Your task to perform on an android device: open wifi settings Image 0: 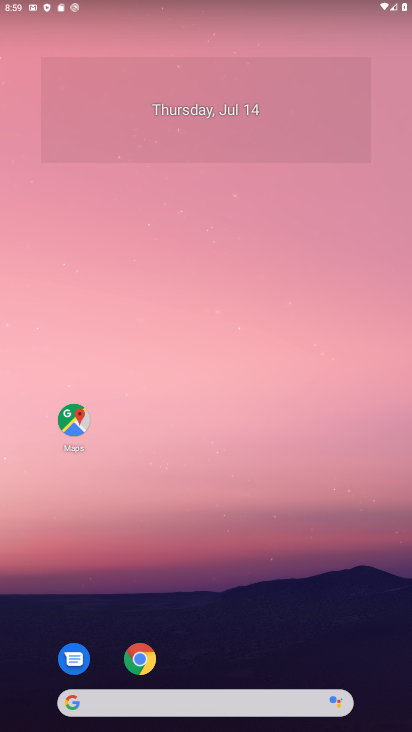
Step 0: press home button
Your task to perform on an android device: open wifi settings Image 1: 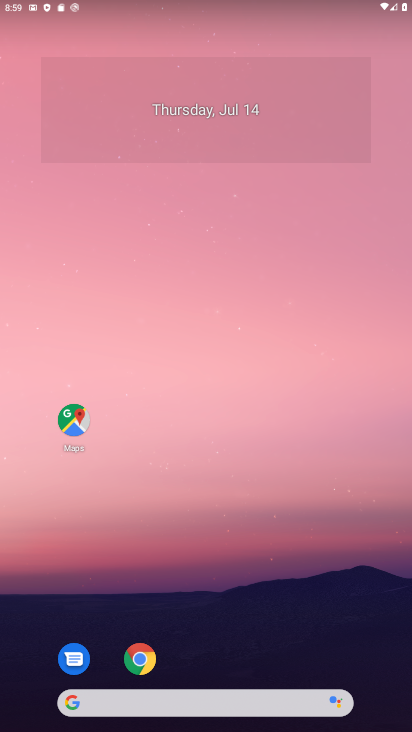
Step 1: drag from (254, 619) to (251, 63)
Your task to perform on an android device: open wifi settings Image 2: 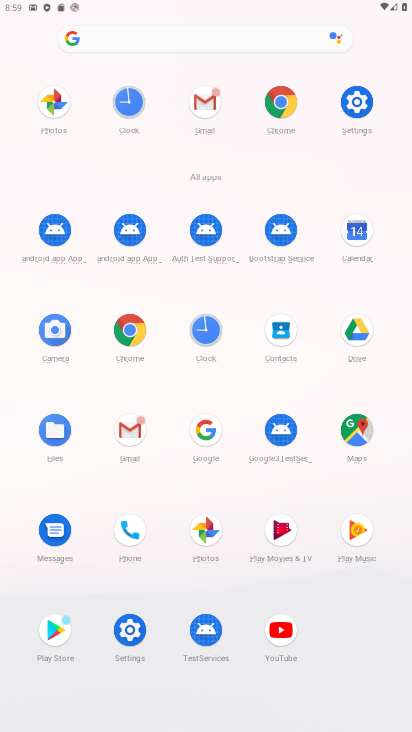
Step 2: click (348, 105)
Your task to perform on an android device: open wifi settings Image 3: 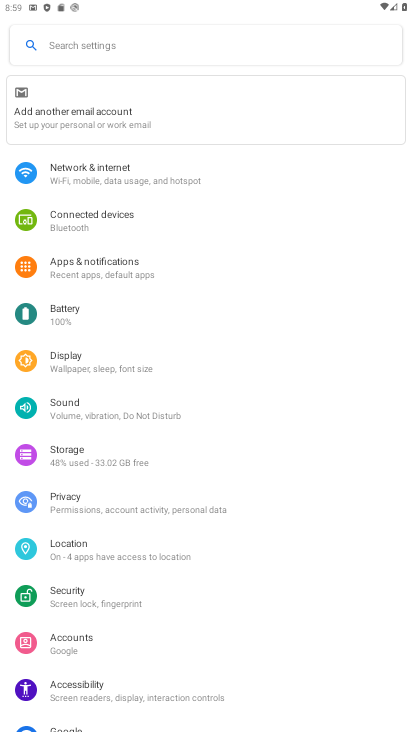
Step 3: click (114, 171)
Your task to perform on an android device: open wifi settings Image 4: 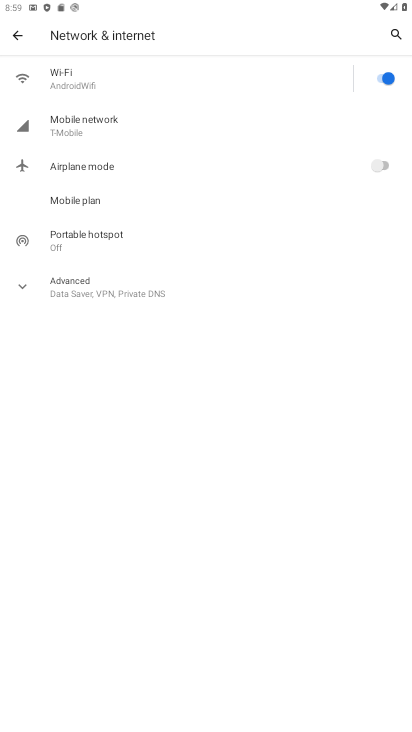
Step 4: click (119, 77)
Your task to perform on an android device: open wifi settings Image 5: 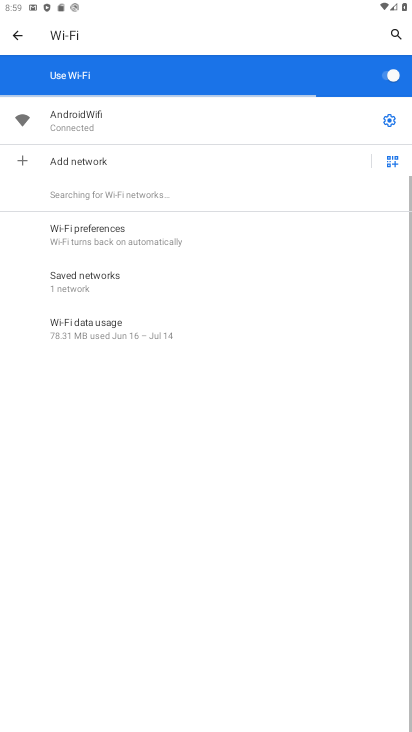
Step 5: task complete